Your task to perform on an android device: Go to privacy settings Image 0: 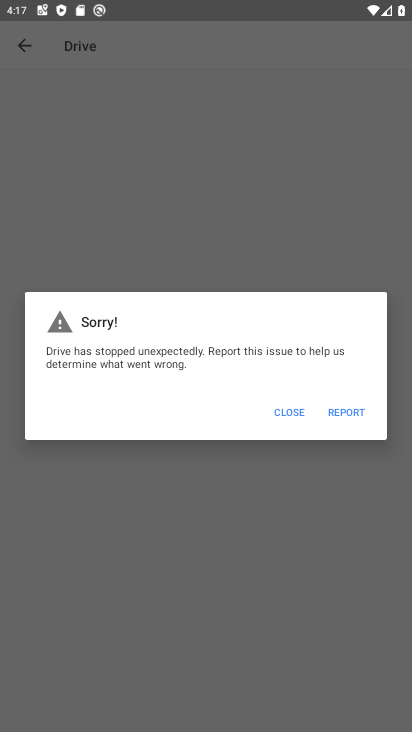
Step 0: press back button
Your task to perform on an android device: Go to privacy settings Image 1: 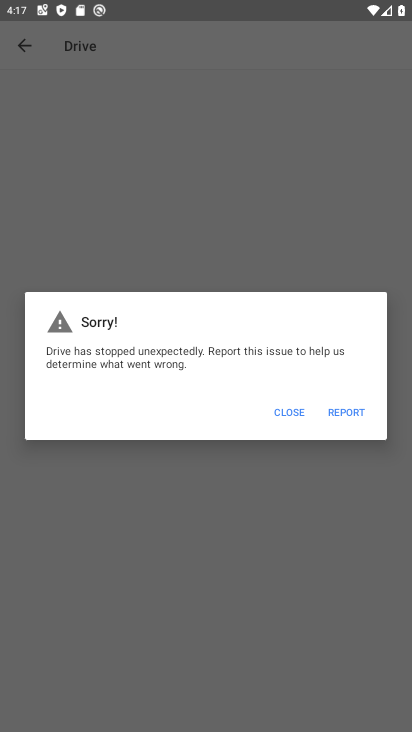
Step 1: press home button
Your task to perform on an android device: Go to privacy settings Image 2: 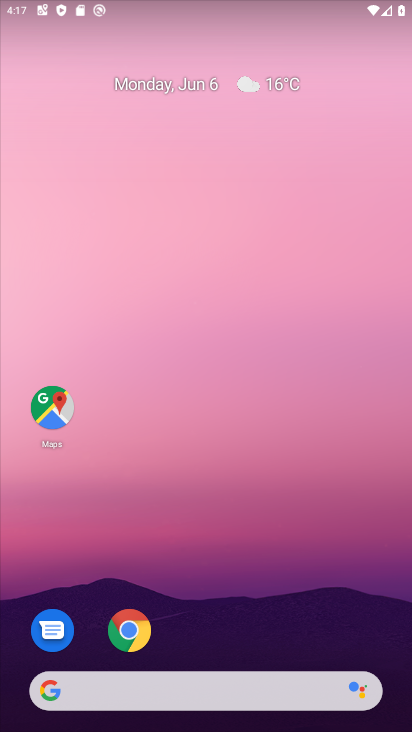
Step 2: drag from (192, 654) to (252, 179)
Your task to perform on an android device: Go to privacy settings Image 3: 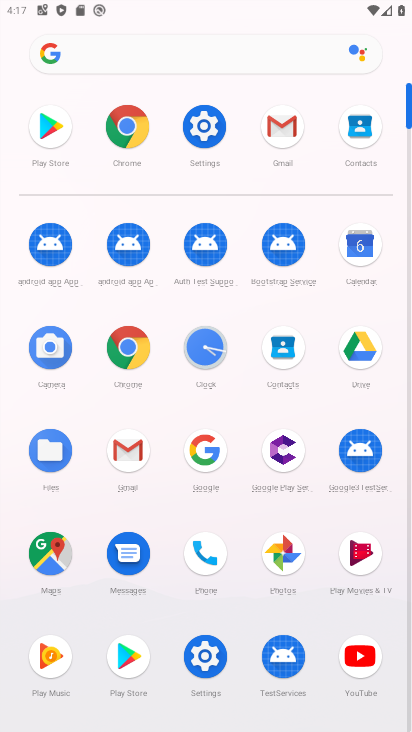
Step 3: click (131, 128)
Your task to perform on an android device: Go to privacy settings Image 4: 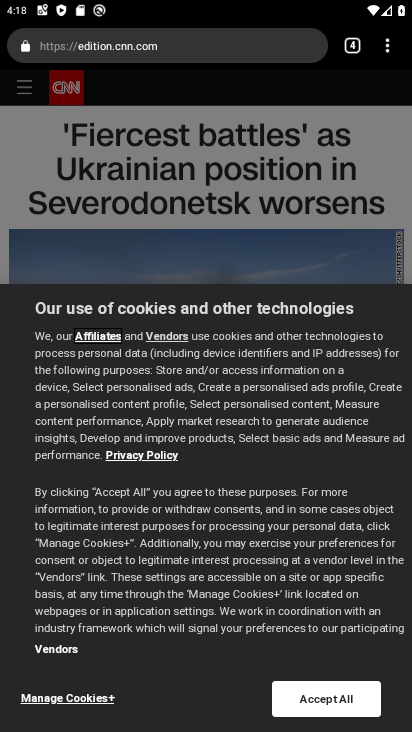
Step 4: drag from (389, 39) to (222, 508)
Your task to perform on an android device: Go to privacy settings Image 5: 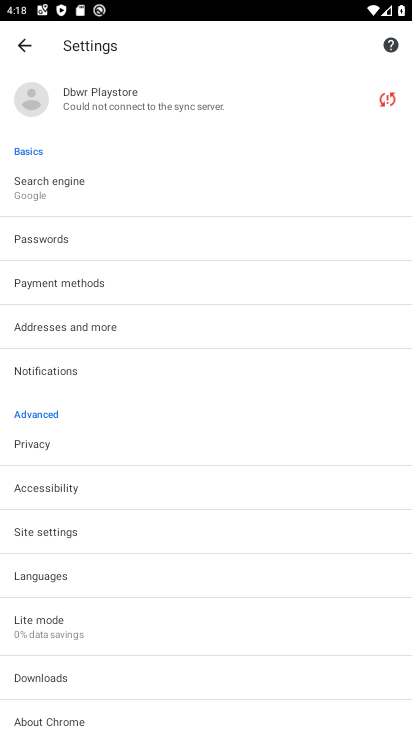
Step 5: click (46, 439)
Your task to perform on an android device: Go to privacy settings Image 6: 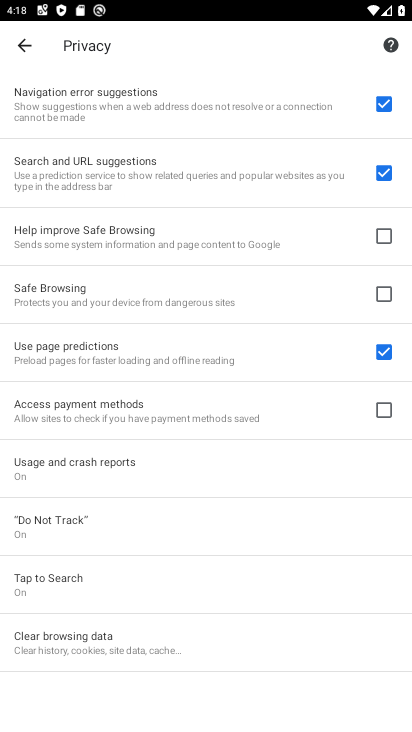
Step 6: task complete